Your task to perform on an android device: uninstall "Google Photos" Image 0: 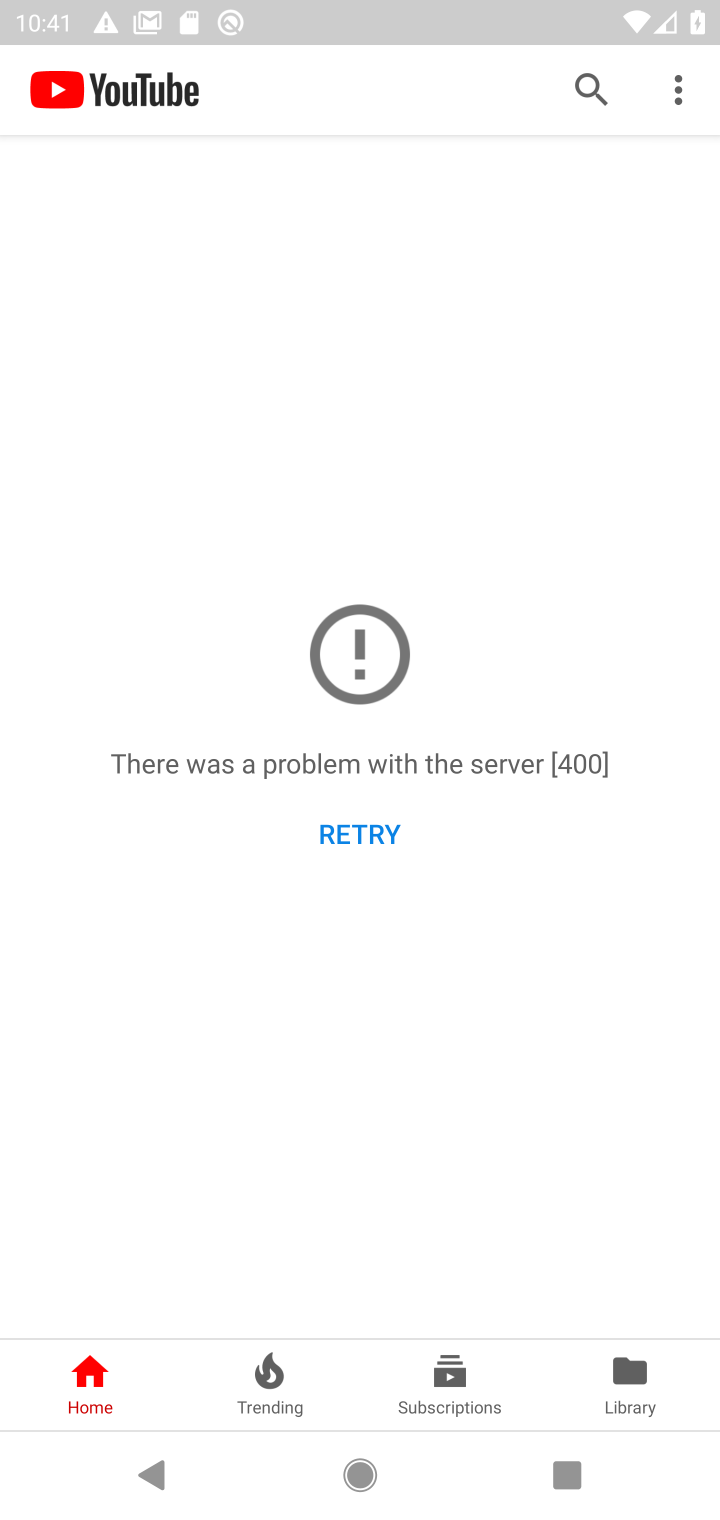
Step 0: press back button
Your task to perform on an android device: uninstall "Google Photos" Image 1: 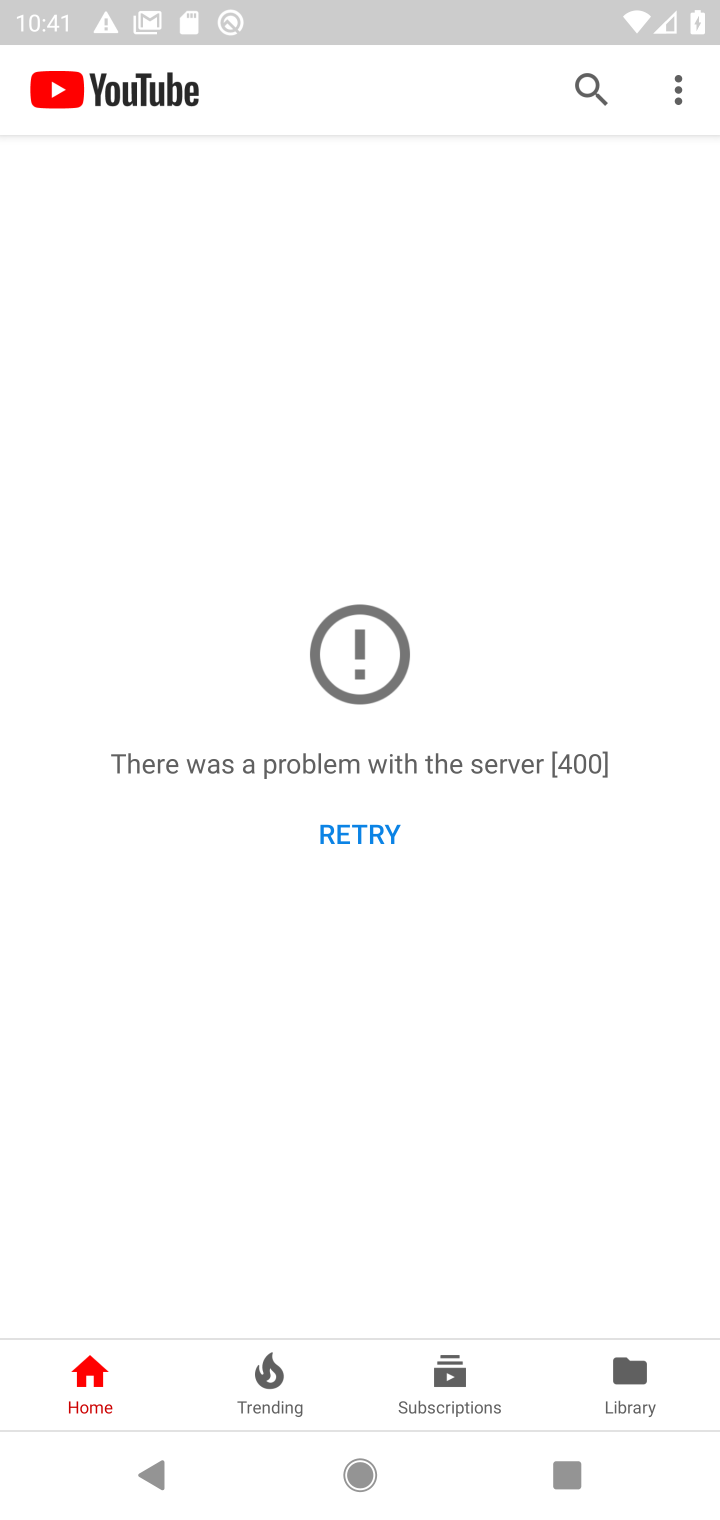
Step 1: press home button
Your task to perform on an android device: uninstall "Google Photos" Image 2: 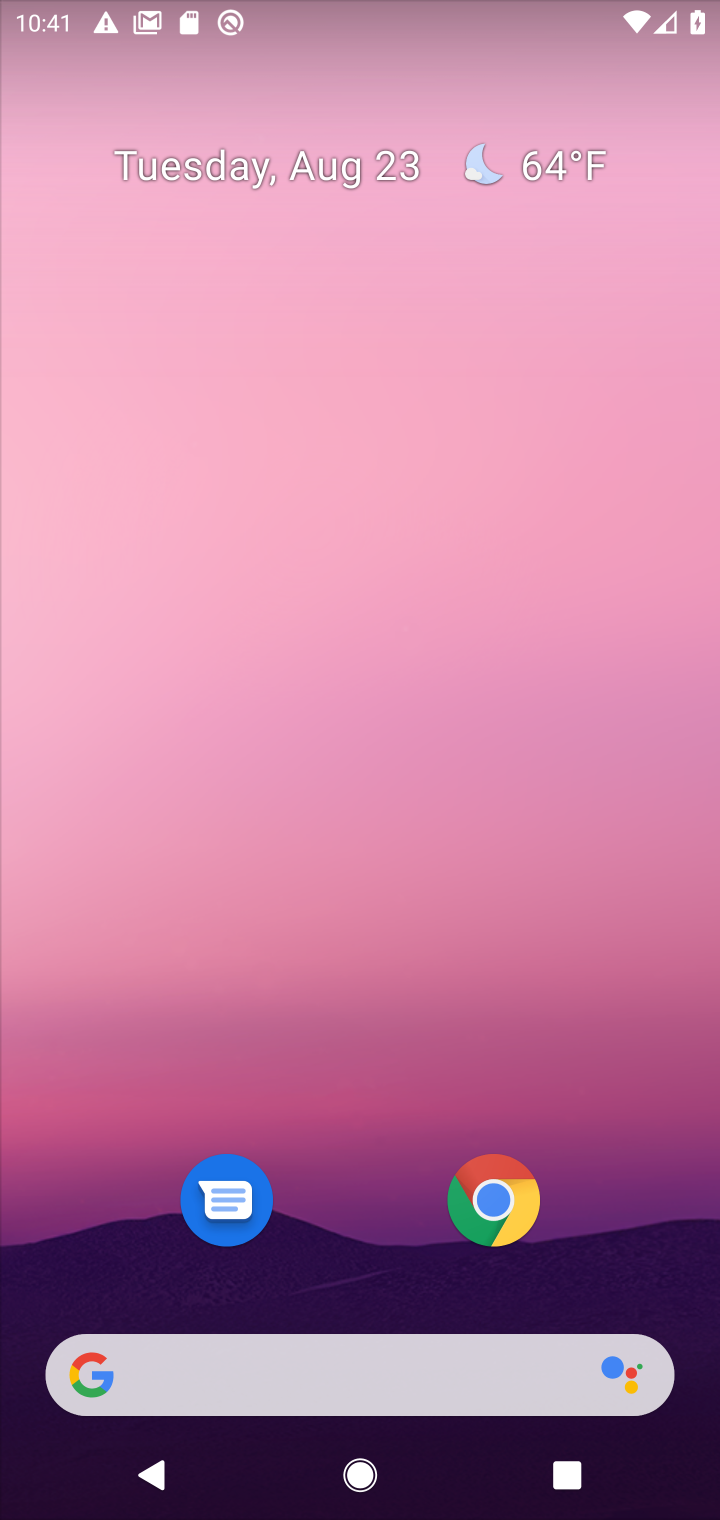
Step 2: drag from (446, 1335) to (559, 0)
Your task to perform on an android device: uninstall "Google Photos" Image 3: 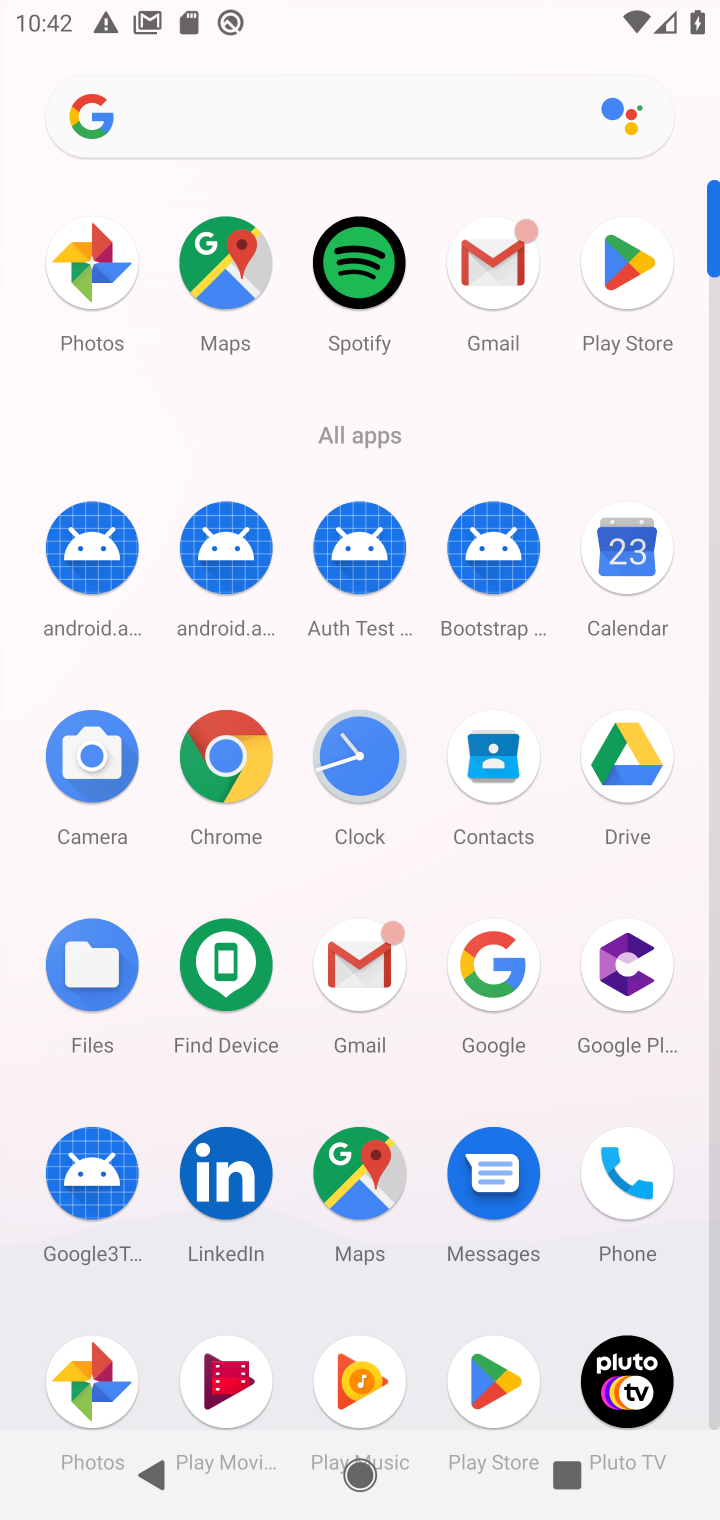
Step 3: click (85, 1361)
Your task to perform on an android device: uninstall "Google Photos" Image 4: 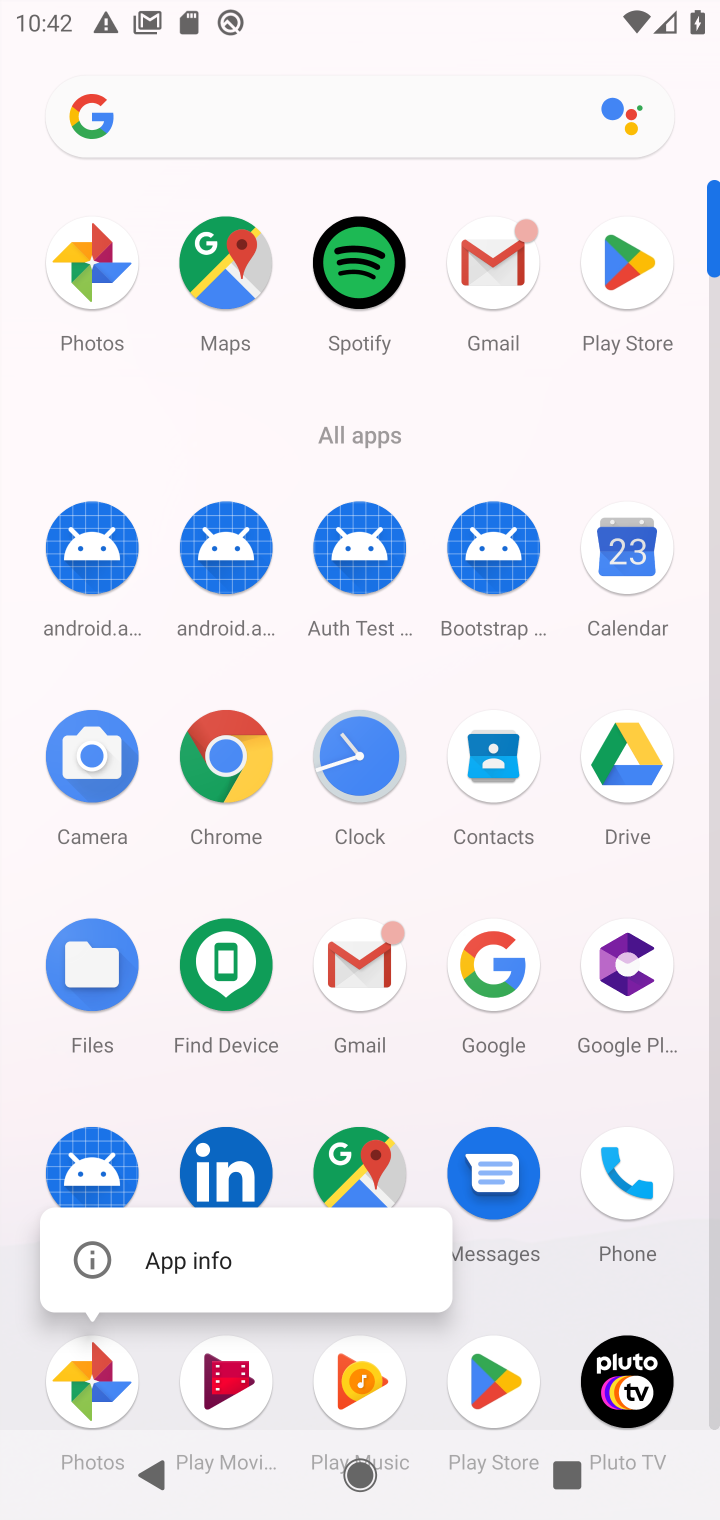
Step 4: click (74, 1277)
Your task to perform on an android device: uninstall "Google Photos" Image 5: 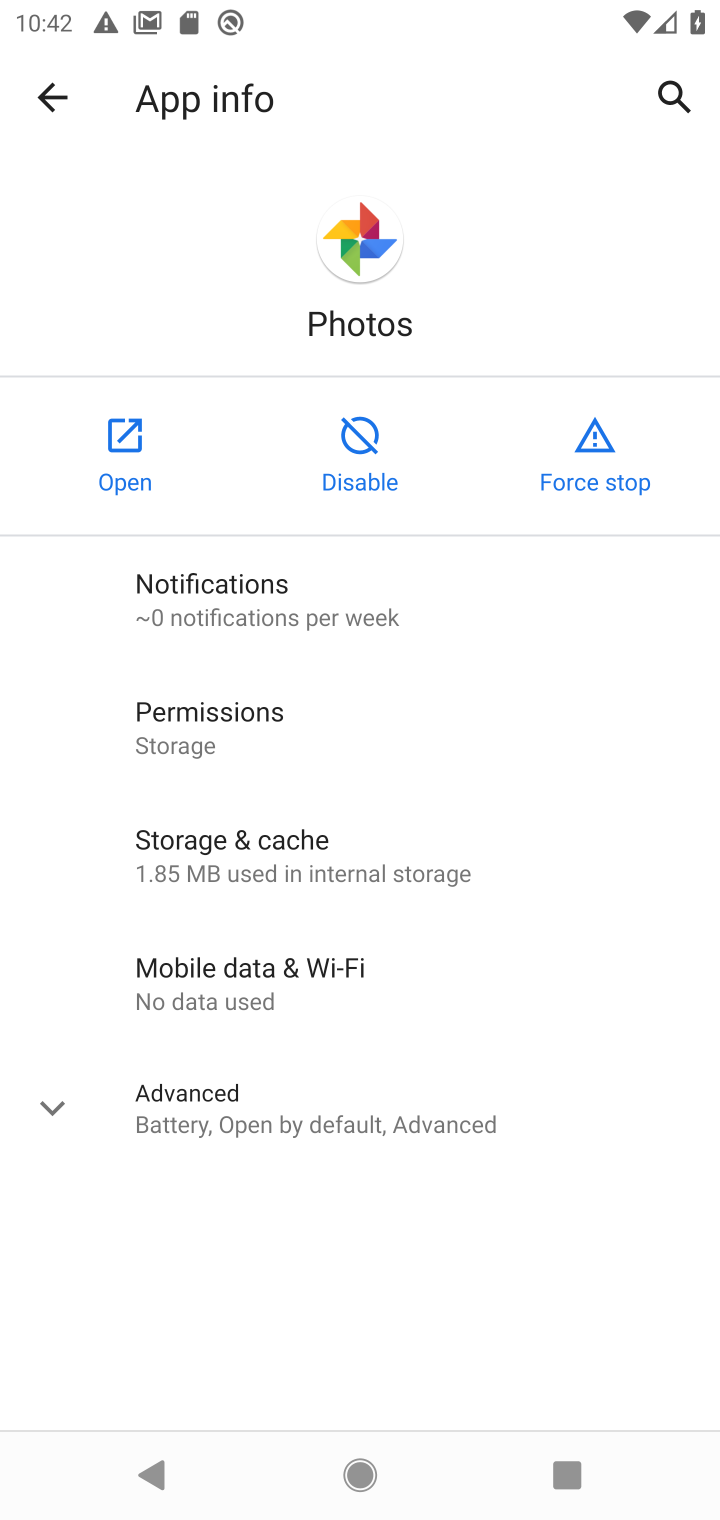
Step 5: click (562, 463)
Your task to perform on an android device: uninstall "Google Photos" Image 6: 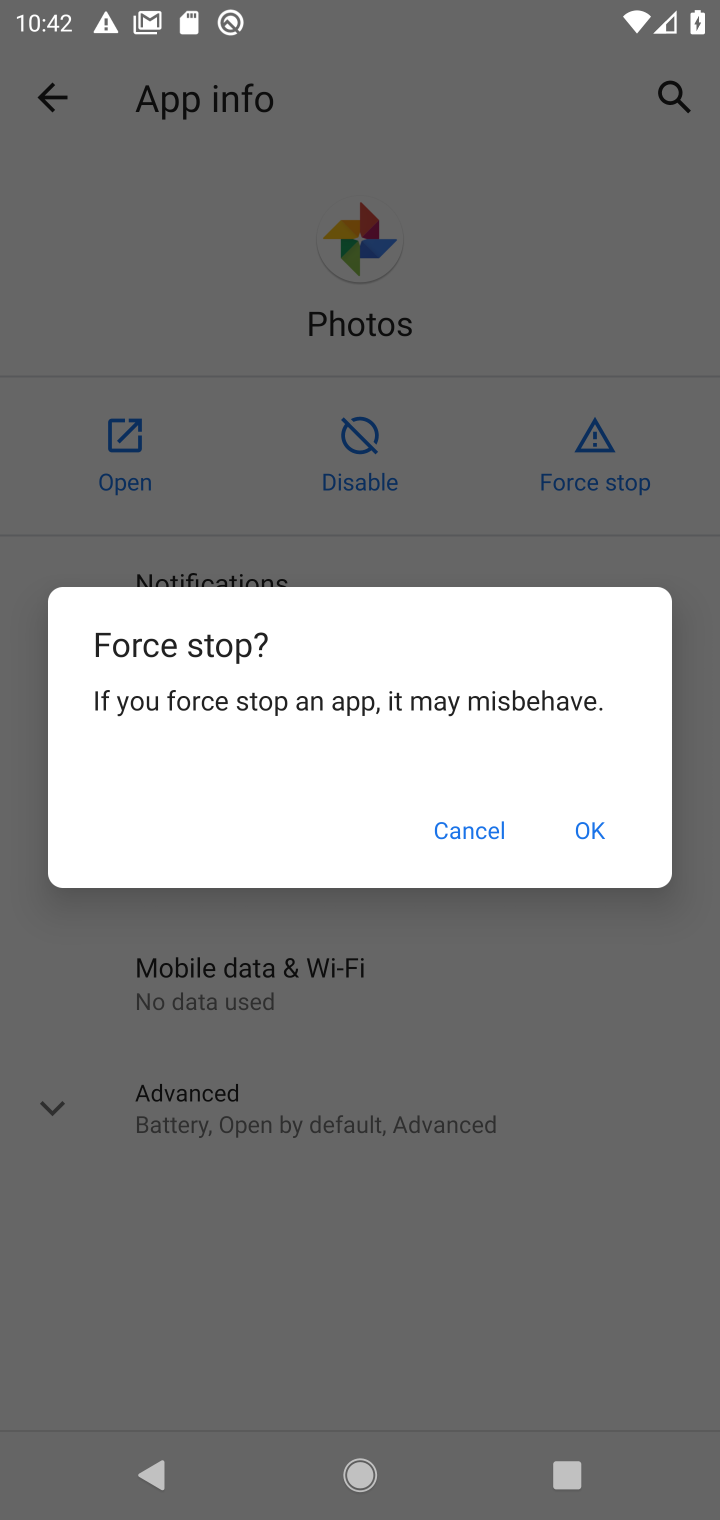
Step 6: task complete